Your task to perform on an android device: Go to Maps Image 0: 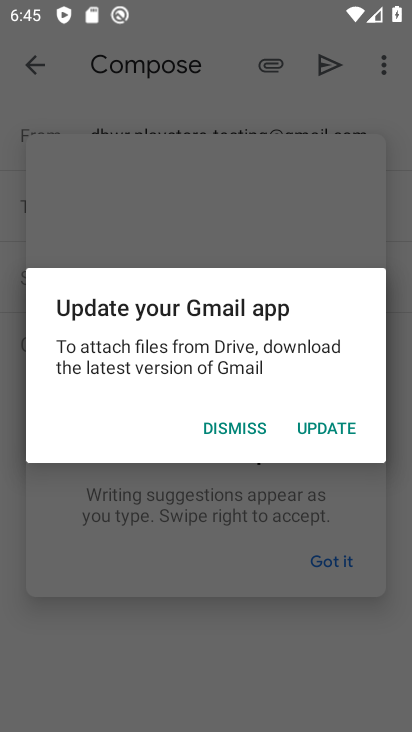
Step 0: click (321, 462)
Your task to perform on an android device: Go to Maps Image 1: 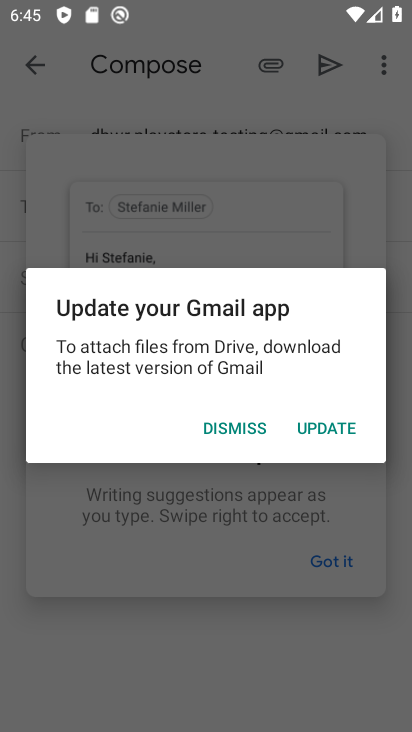
Step 1: click (322, 440)
Your task to perform on an android device: Go to Maps Image 2: 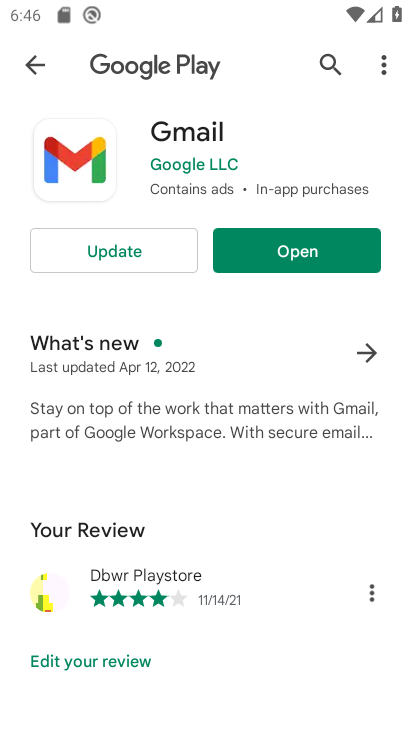
Step 2: click (168, 250)
Your task to perform on an android device: Go to Maps Image 3: 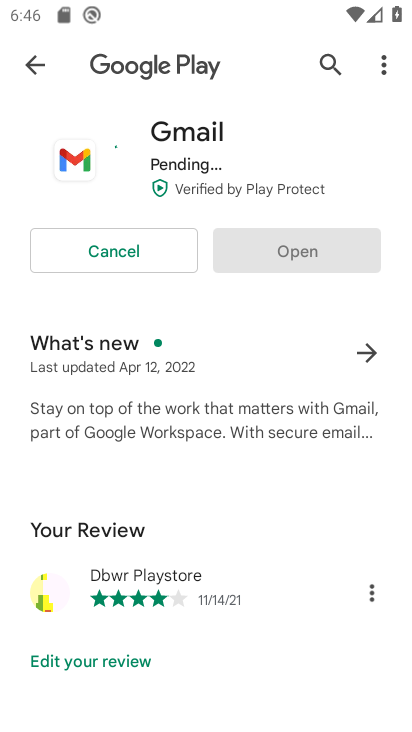
Step 3: press back button
Your task to perform on an android device: Go to Maps Image 4: 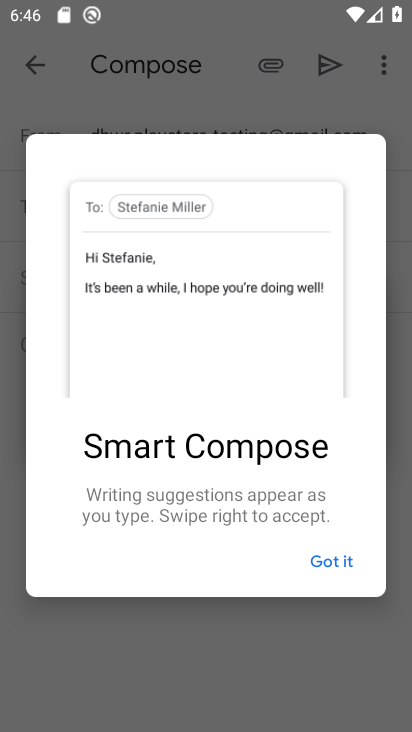
Step 4: press back button
Your task to perform on an android device: Go to Maps Image 5: 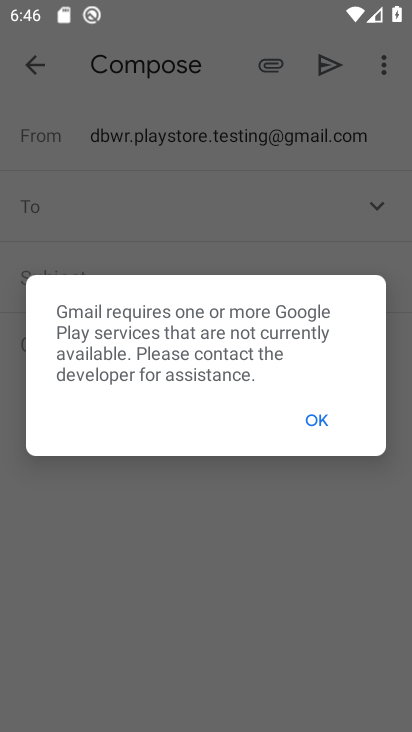
Step 5: press back button
Your task to perform on an android device: Go to Maps Image 6: 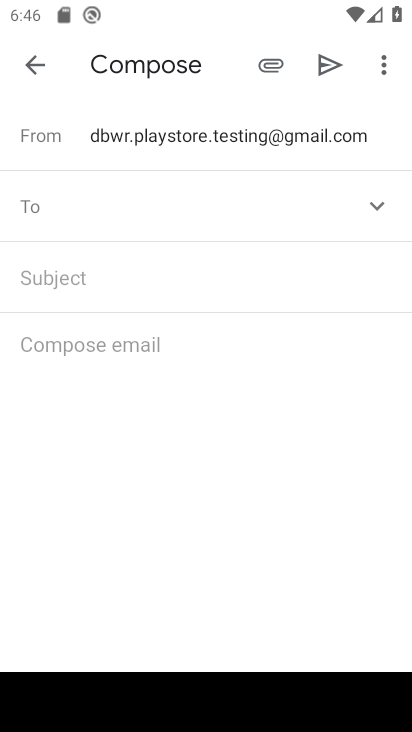
Step 6: press back button
Your task to perform on an android device: Go to Maps Image 7: 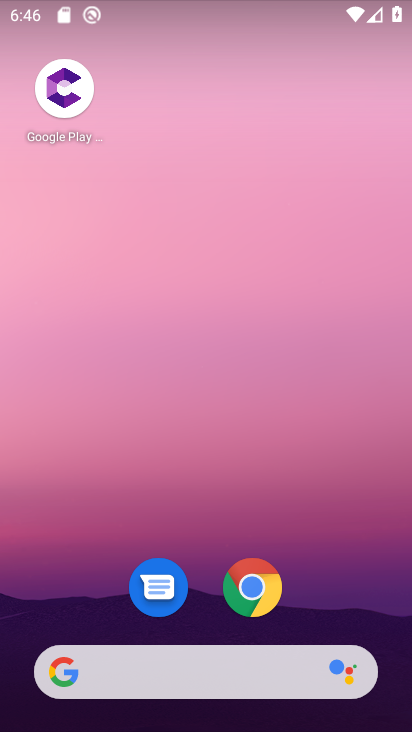
Step 7: drag from (323, 577) to (281, 35)
Your task to perform on an android device: Go to Maps Image 8: 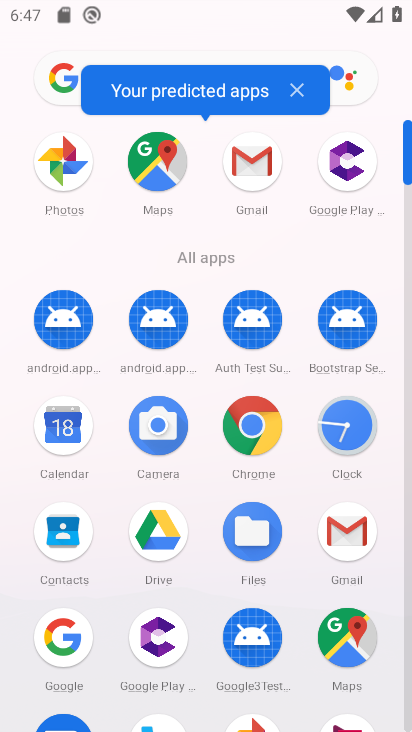
Step 8: click (157, 161)
Your task to perform on an android device: Go to Maps Image 9: 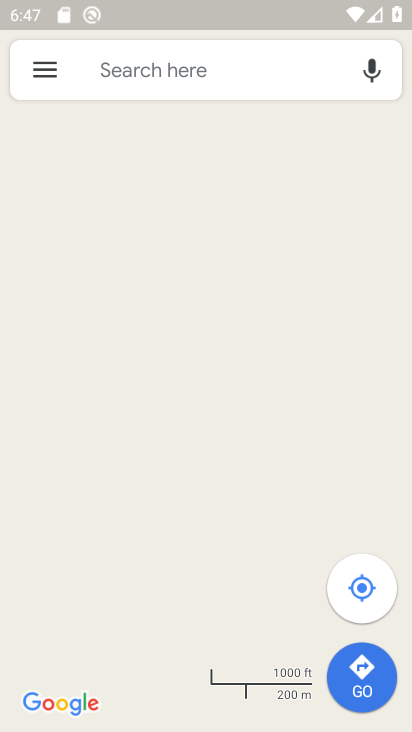
Step 9: task complete